Your task to perform on an android device: Toggle the flashlight Image 0: 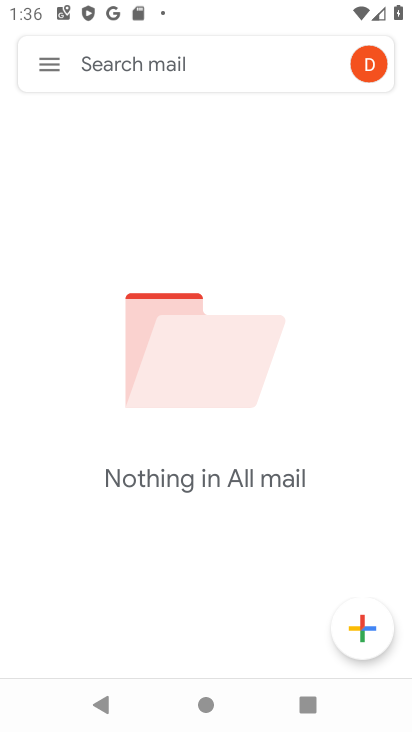
Step 0: task impossible